Your task to perform on an android device: change the clock style Image 0: 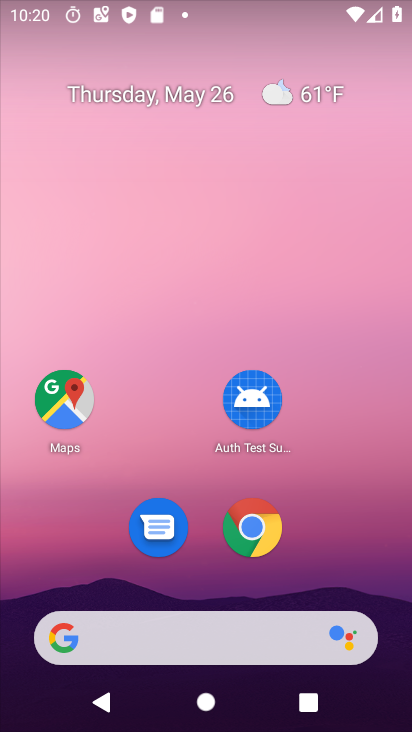
Step 0: drag from (354, 463) to (355, 78)
Your task to perform on an android device: change the clock style Image 1: 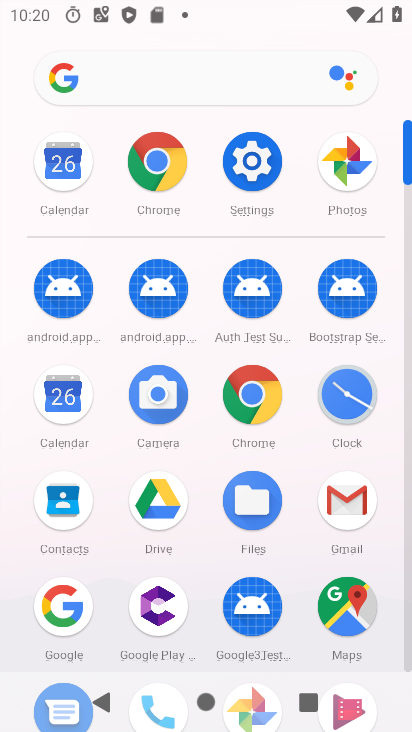
Step 1: click (339, 399)
Your task to perform on an android device: change the clock style Image 2: 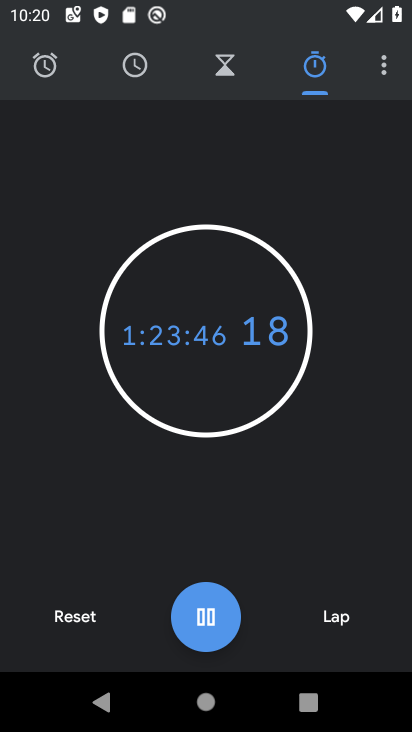
Step 2: task complete